Your task to perform on an android device: create a new album in the google photos Image 0: 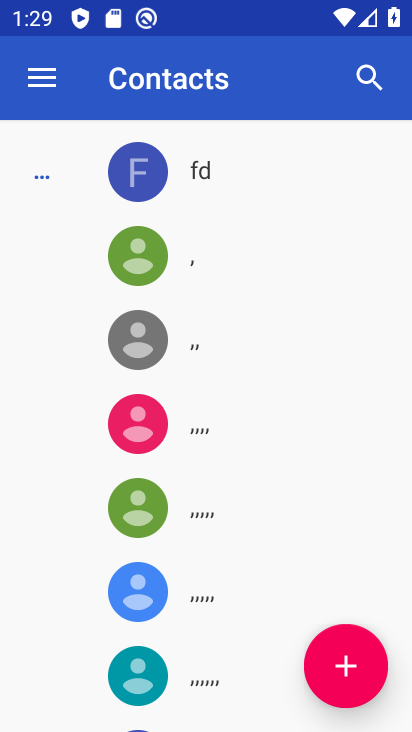
Step 0: press home button
Your task to perform on an android device: create a new album in the google photos Image 1: 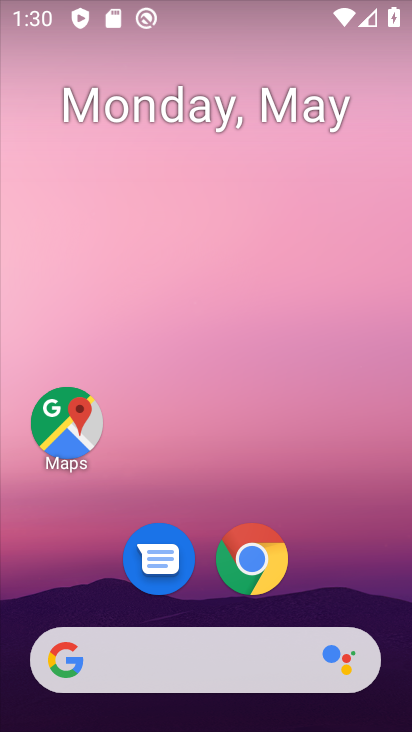
Step 1: drag from (279, 505) to (292, 52)
Your task to perform on an android device: create a new album in the google photos Image 2: 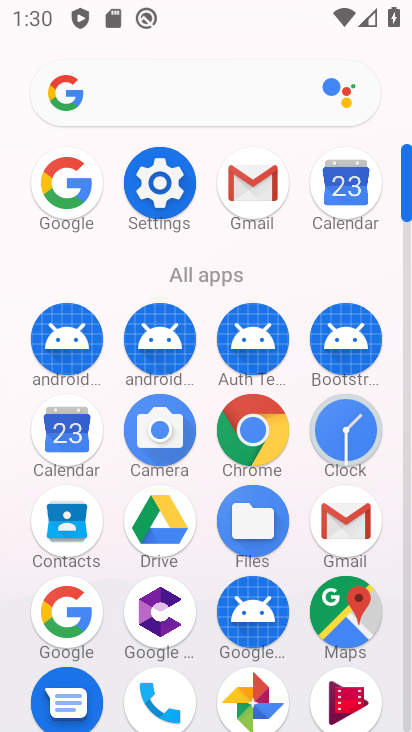
Step 2: click (263, 685)
Your task to perform on an android device: create a new album in the google photos Image 3: 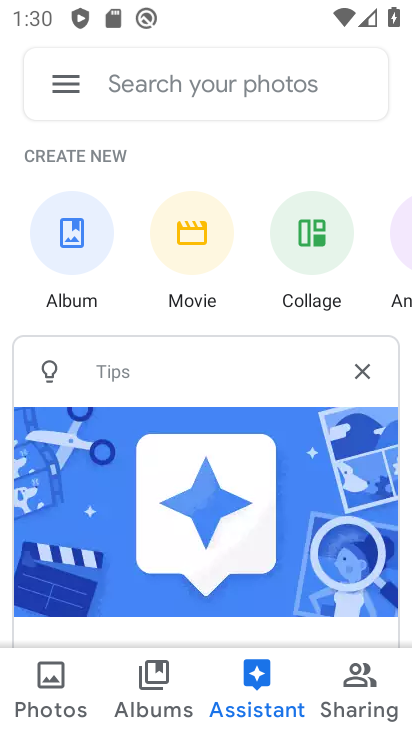
Step 3: click (175, 704)
Your task to perform on an android device: create a new album in the google photos Image 4: 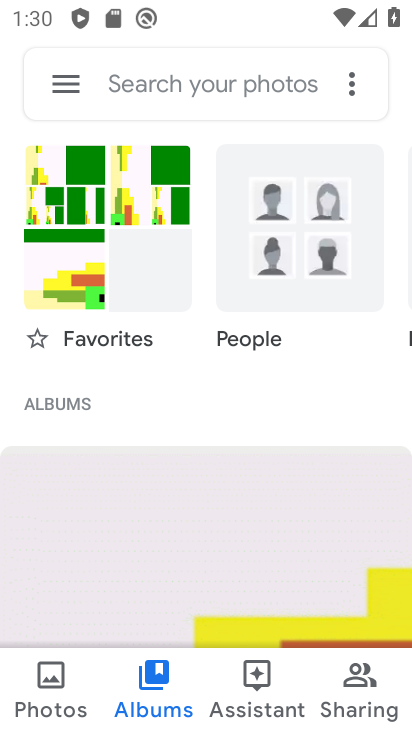
Step 4: click (353, 91)
Your task to perform on an android device: create a new album in the google photos Image 5: 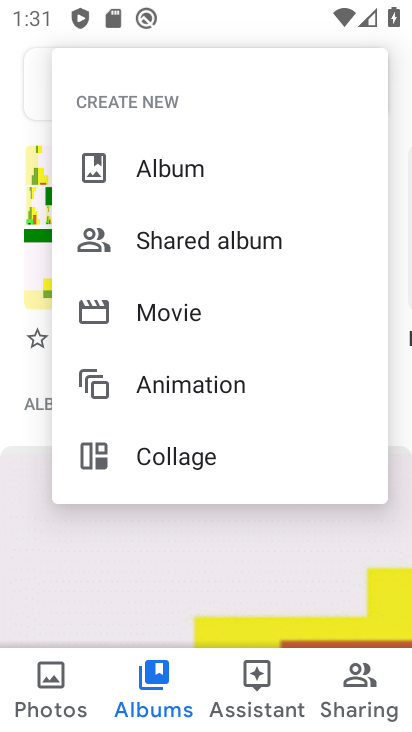
Step 5: click (188, 163)
Your task to perform on an android device: create a new album in the google photos Image 6: 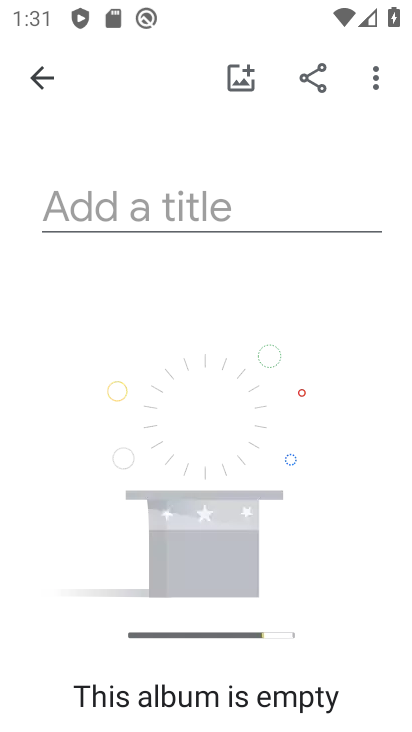
Step 6: click (171, 210)
Your task to perform on an android device: create a new album in the google photos Image 7: 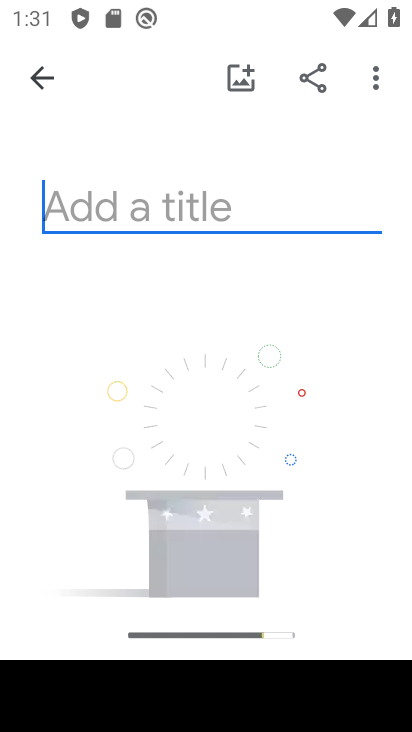
Step 7: type "ghoda"
Your task to perform on an android device: create a new album in the google photos Image 8: 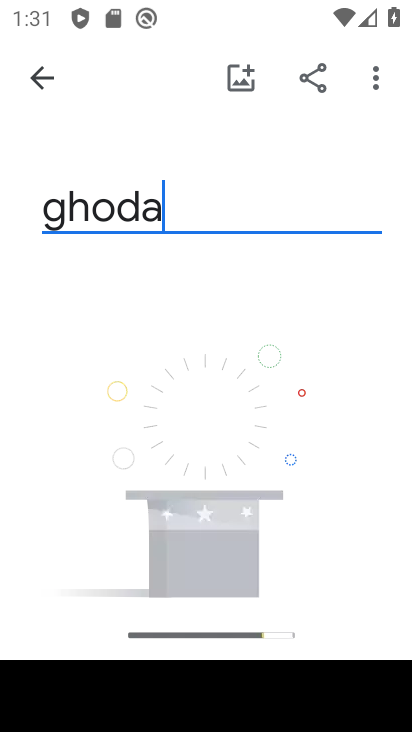
Step 8: drag from (258, 486) to (275, 197)
Your task to perform on an android device: create a new album in the google photos Image 9: 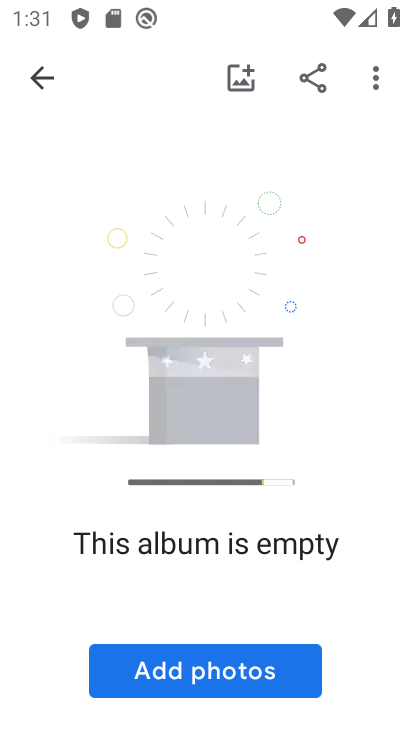
Step 9: click (233, 674)
Your task to perform on an android device: create a new album in the google photos Image 10: 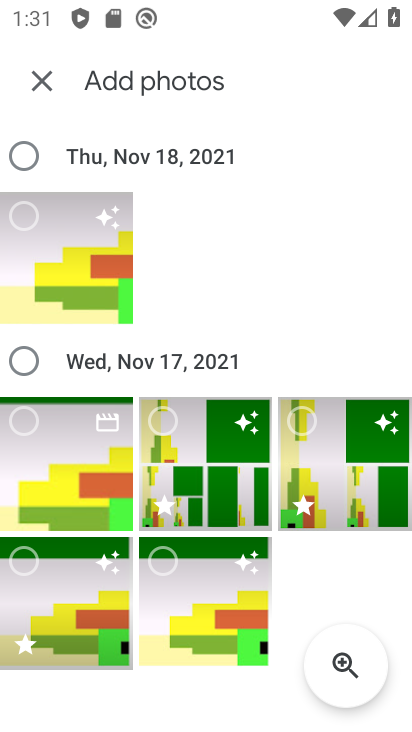
Step 10: click (54, 236)
Your task to perform on an android device: create a new album in the google photos Image 11: 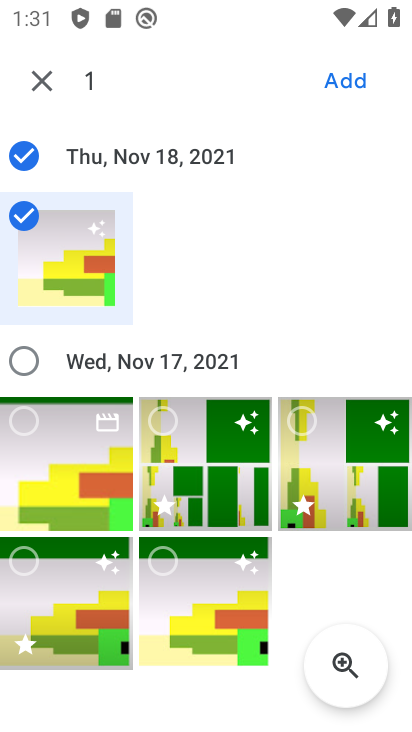
Step 11: click (362, 84)
Your task to perform on an android device: create a new album in the google photos Image 12: 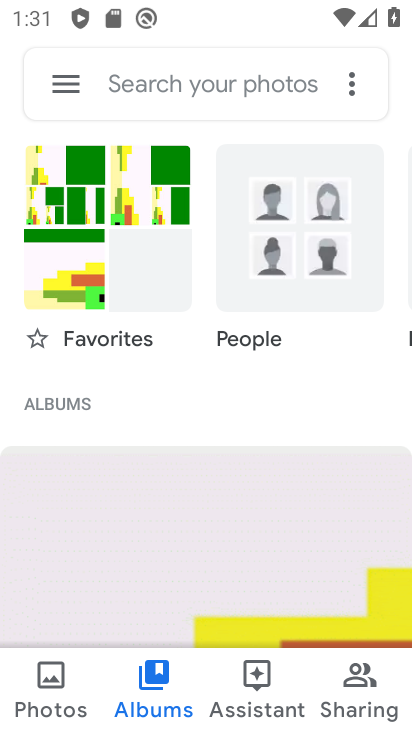
Step 12: task complete